Your task to perform on an android device: turn on wifi Image 0: 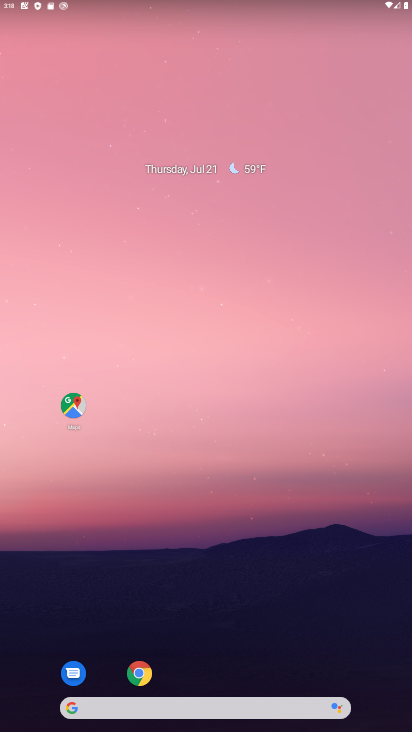
Step 0: drag from (383, 691) to (306, 93)
Your task to perform on an android device: turn on wifi Image 1: 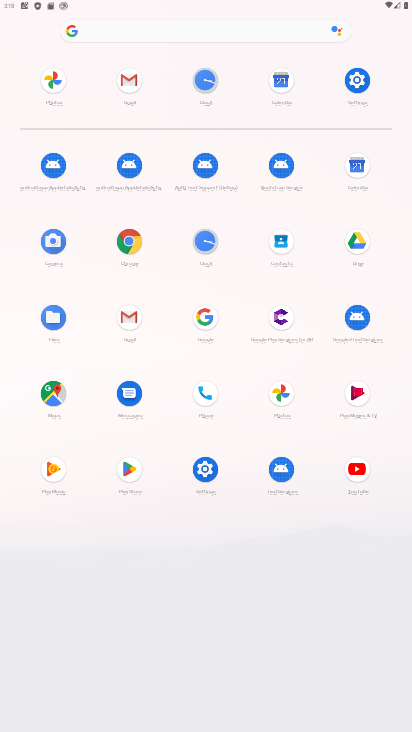
Step 1: click (206, 470)
Your task to perform on an android device: turn on wifi Image 2: 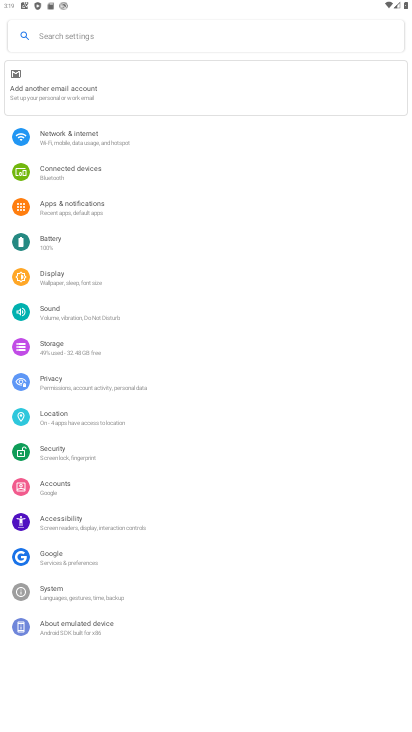
Step 2: click (58, 134)
Your task to perform on an android device: turn on wifi Image 3: 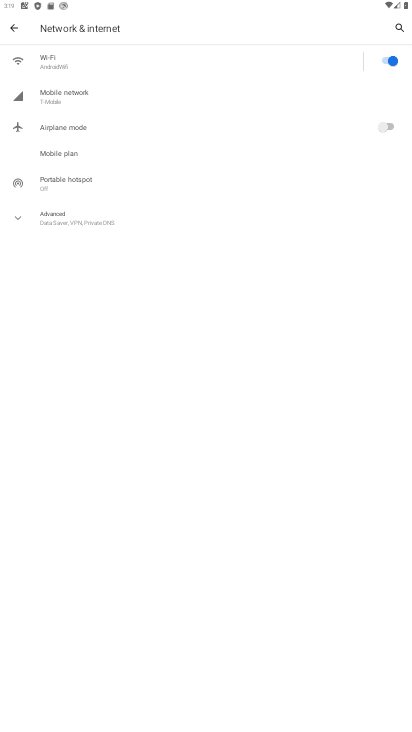
Step 3: task complete